Your task to perform on an android device: turn off improve location accuracy Image 0: 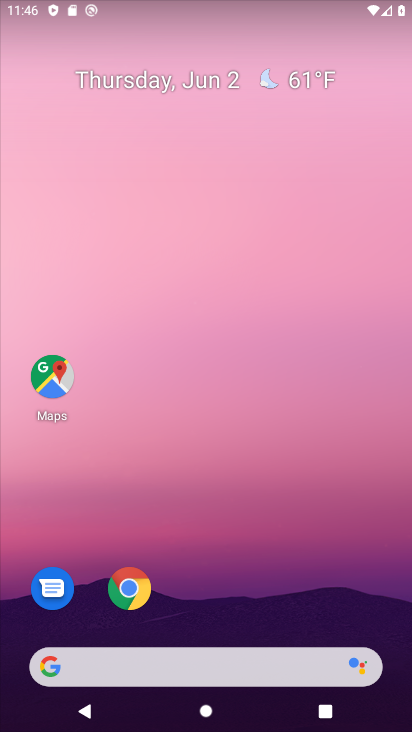
Step 0: click (236, 145)
Your task to perform on an android device: turn off improve location accuracy Image 1: 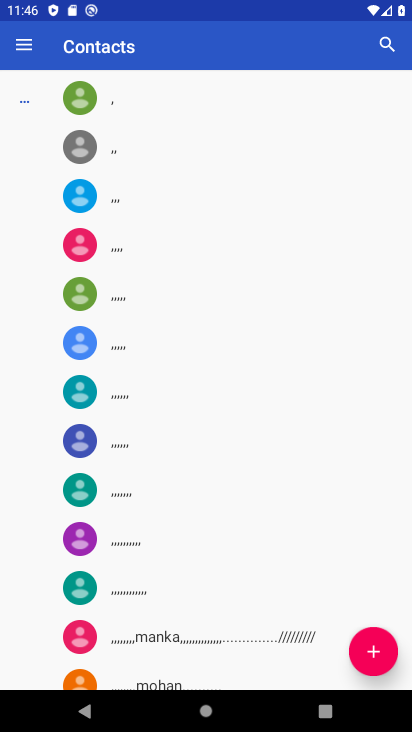
Step 1: press home button
Your task to perform on an android device: turn off improve location accuracy Image 2: 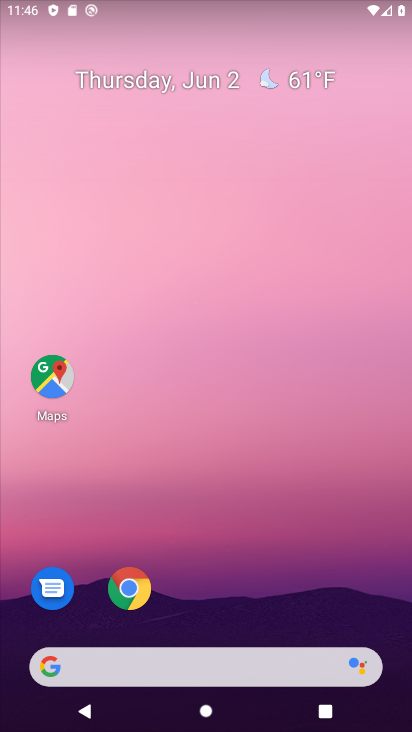
Step 2: drag from (249, 476) to (254, 137)
Your task to perform on an android device: turn off improve location accuracy Image 3: 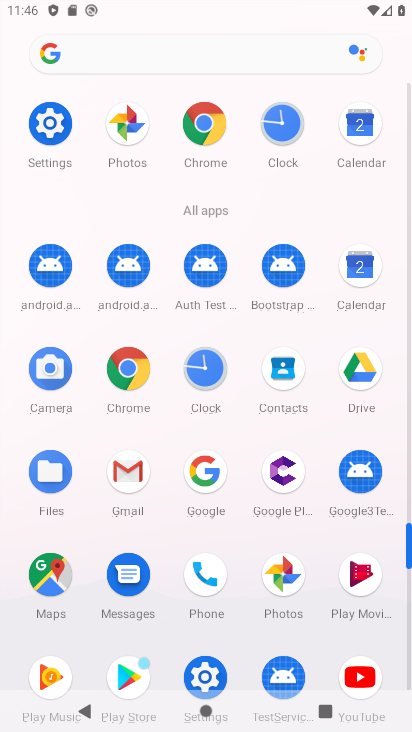
Step 3: drag from (168, 227) to (179, 69)
Your task to perform on an android device: turn off improve location accuracy Image 4: 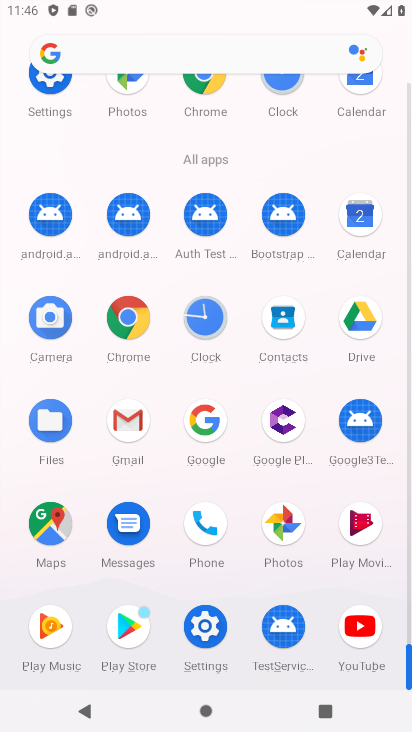
Step 4: click (206, 638)
Your task to perform on an android device: turn off improve location accuracy Image 5: 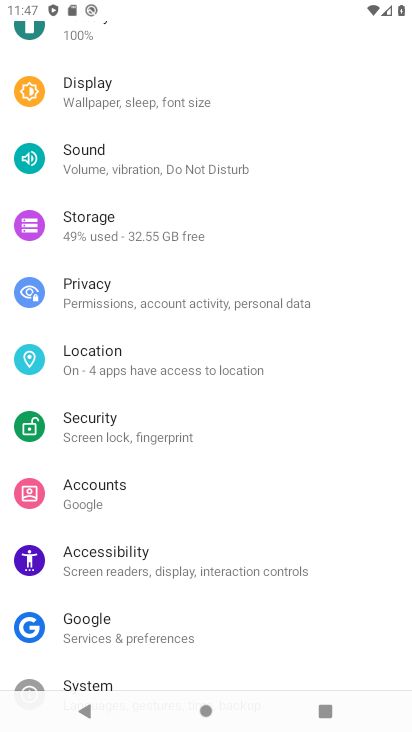
Step 5: click (111, 350)
Your task to perform on an android device: turn off improve location accuracy Image 6: 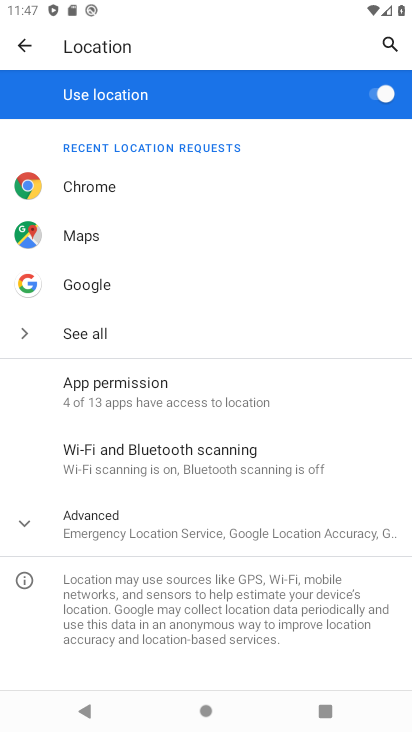
Step 6: click (159, 548)
Your task to perform on an android device: turn off improve location accuracy Image 7: 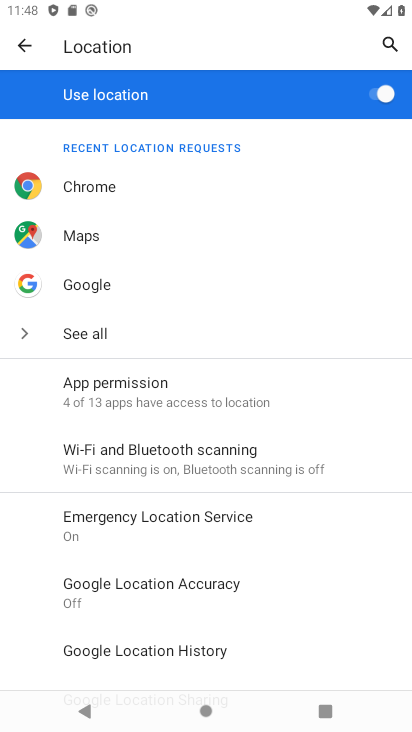
Step 7: task complete